Your task to perform on an android device: Go to Maps Image 0: 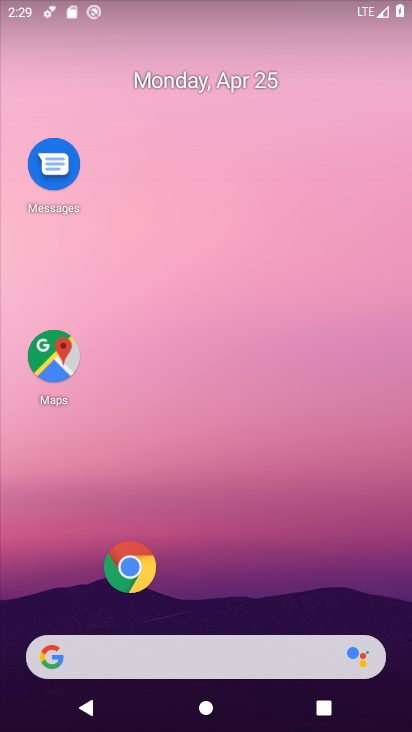
Step 0: click (56, 354)
Your task to perform on an android device: Go to Maps Image 1: 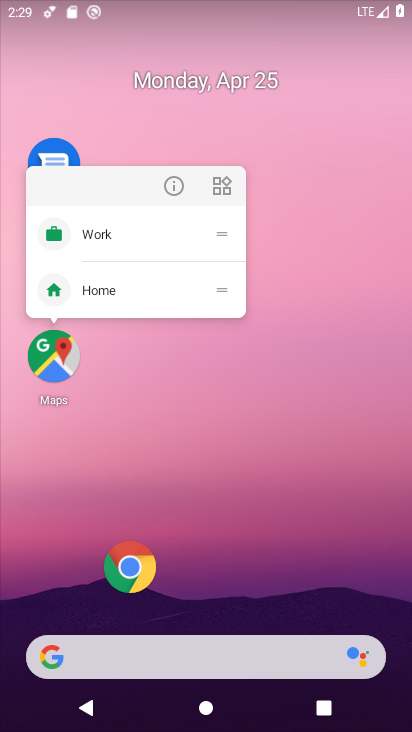
Step 1: click (56, 354)
Your task to perform on an android device: Go to Maps Image 2: 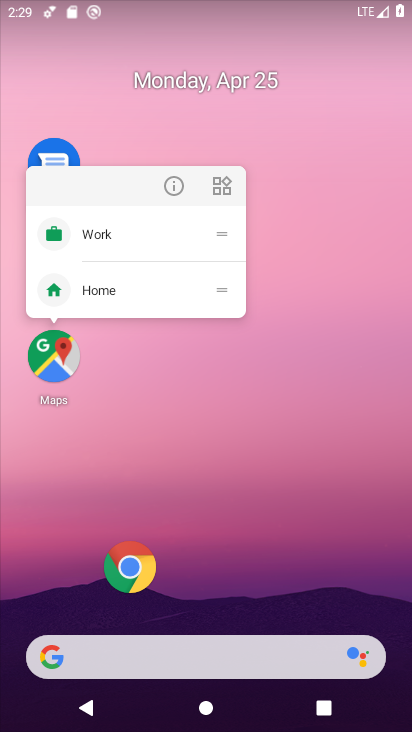
Step 2: click (71, 359)
Your task to perform on an android device: Go to Maps Image 3: 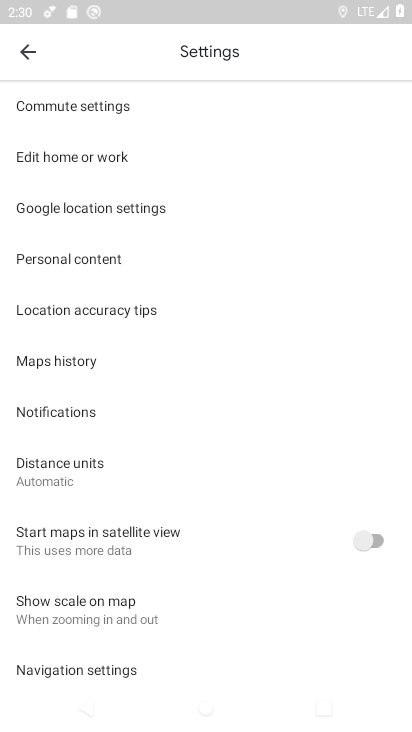
Step 3: click (27, 61)
Your task to perform on an android device: Go to Maps Image 4: 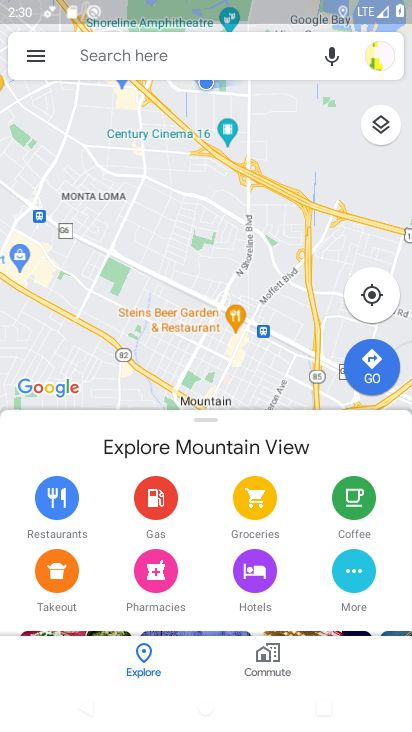
Step 4: task complete